Your task to perform on an android device: Go to Wikipedia Image 0: 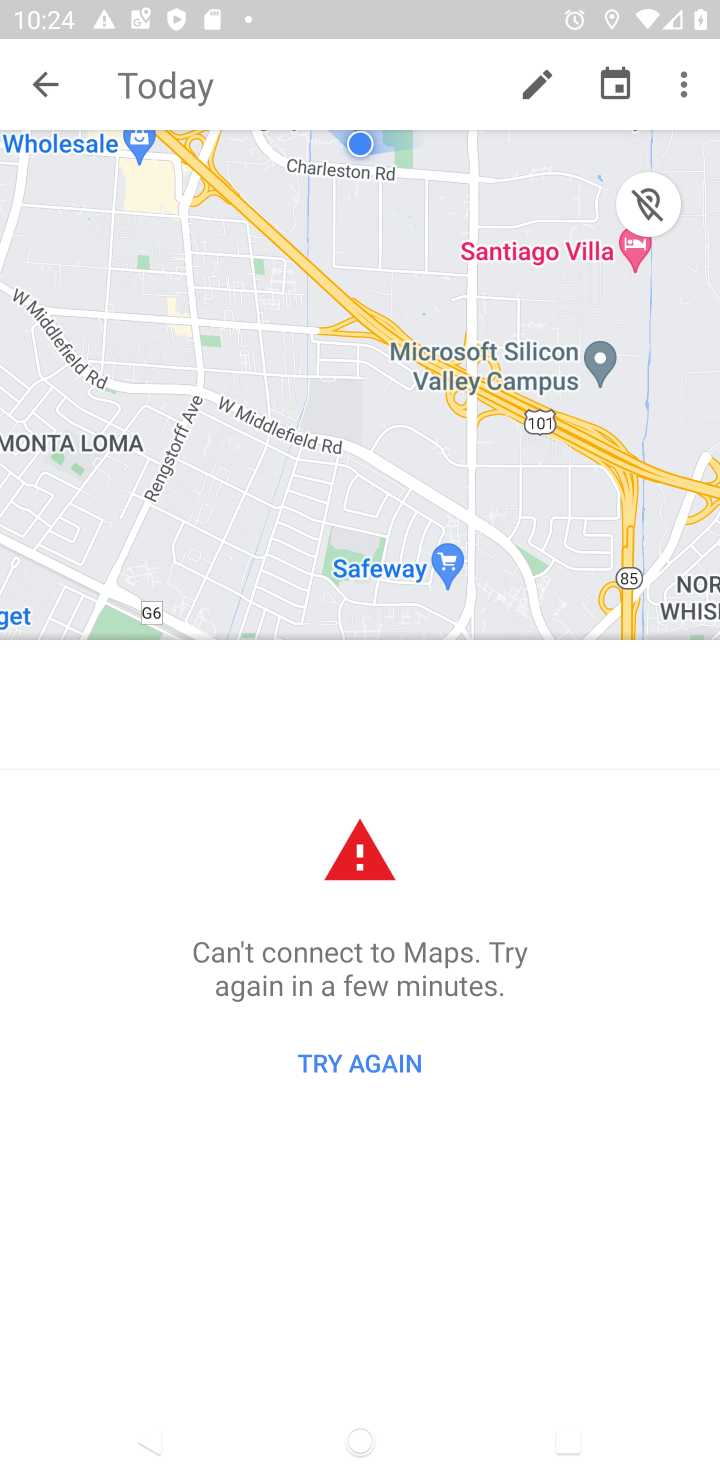
Step 0: press home button
Your task to perform on an android device: Go to Wikipedia Image 1: 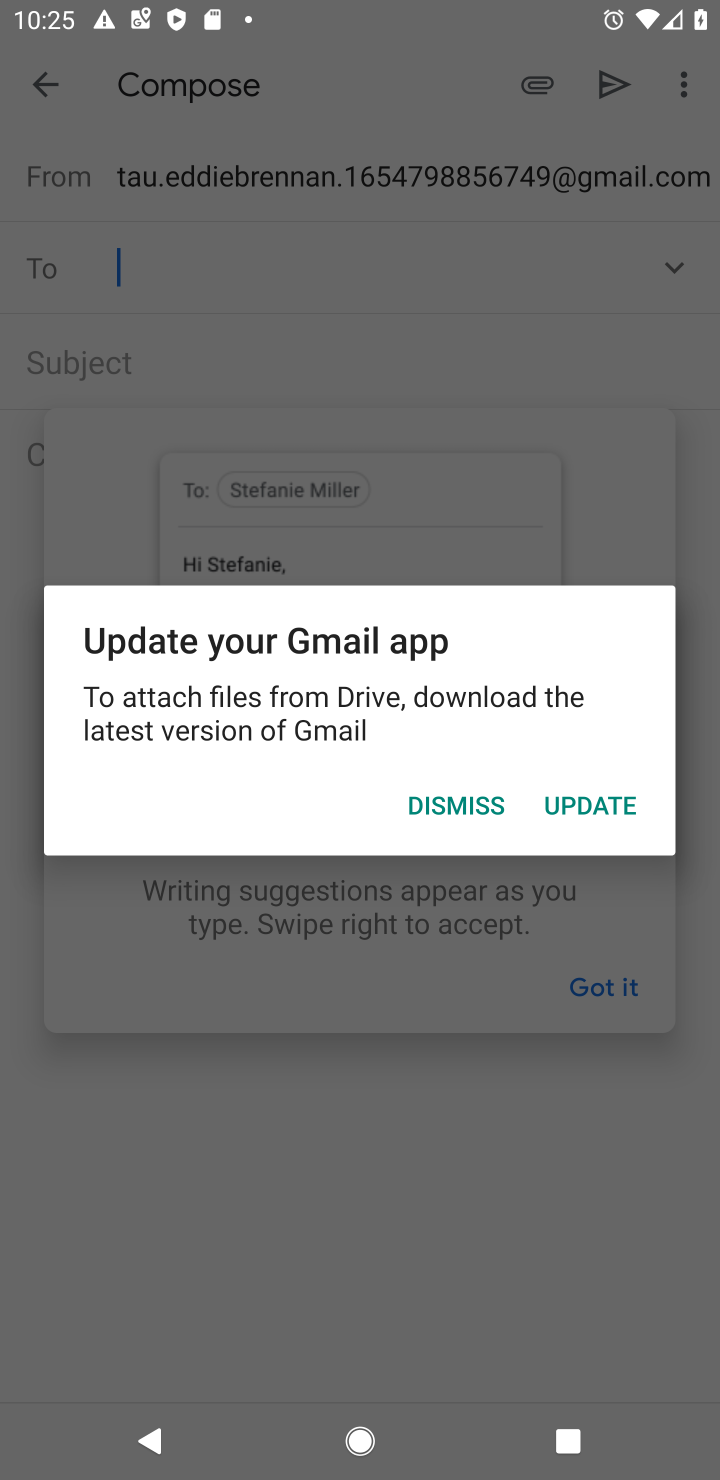
Step 1: press home button
Your task to perform on an android device: Go to Wikipedia Image 2: 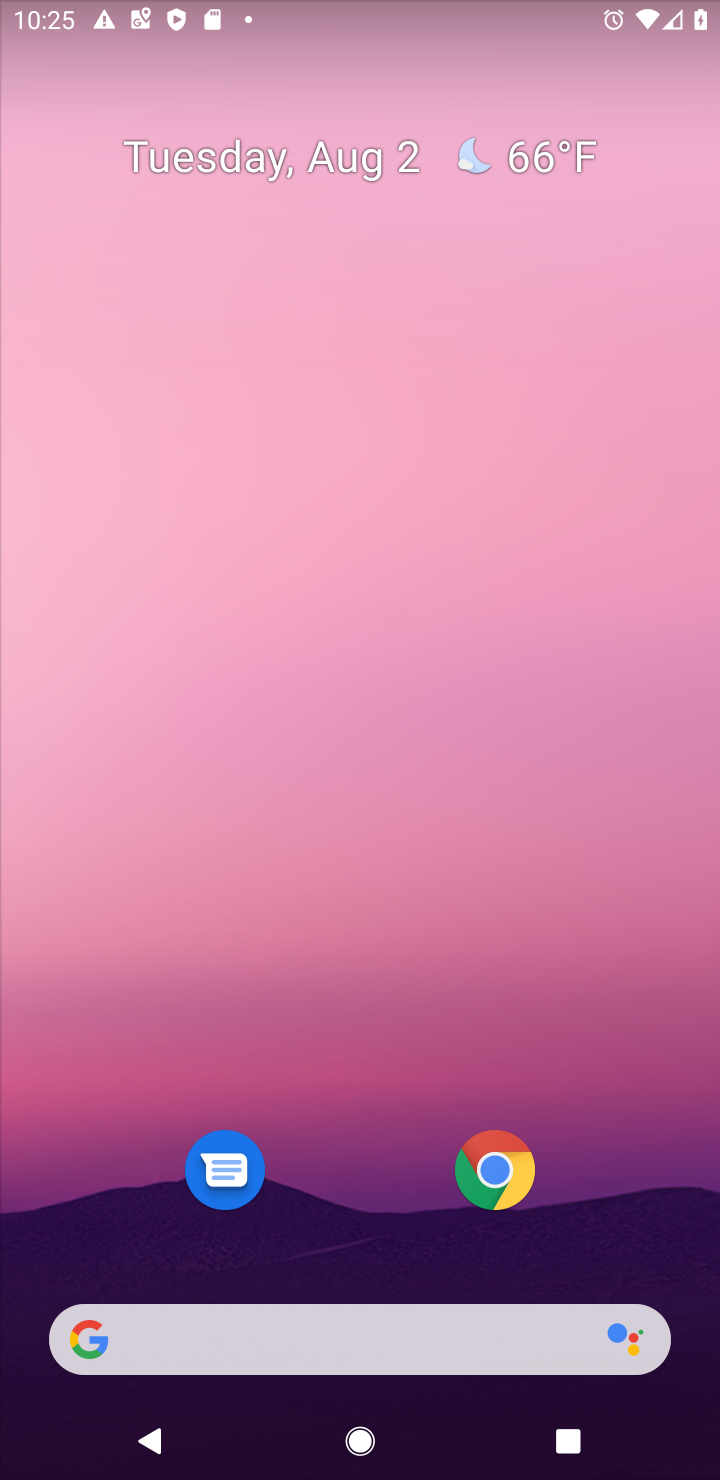
Step 2: drag from (294, 614) to (341, 60)
Your task to perform on an android device: Go to Wikipedia Image 3: 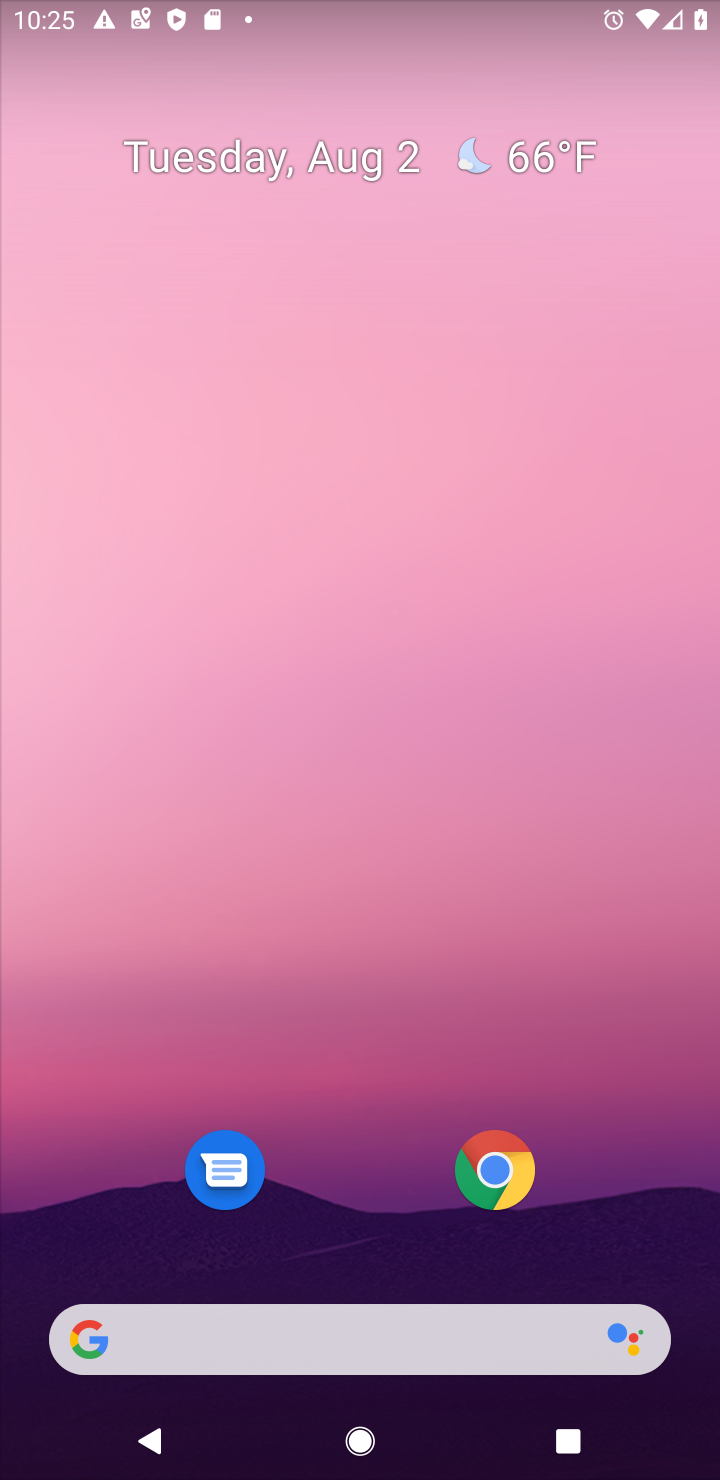
Step 3: click (359, 271)
Your task to perform on an android device: Go to Wikipedia Image 4: 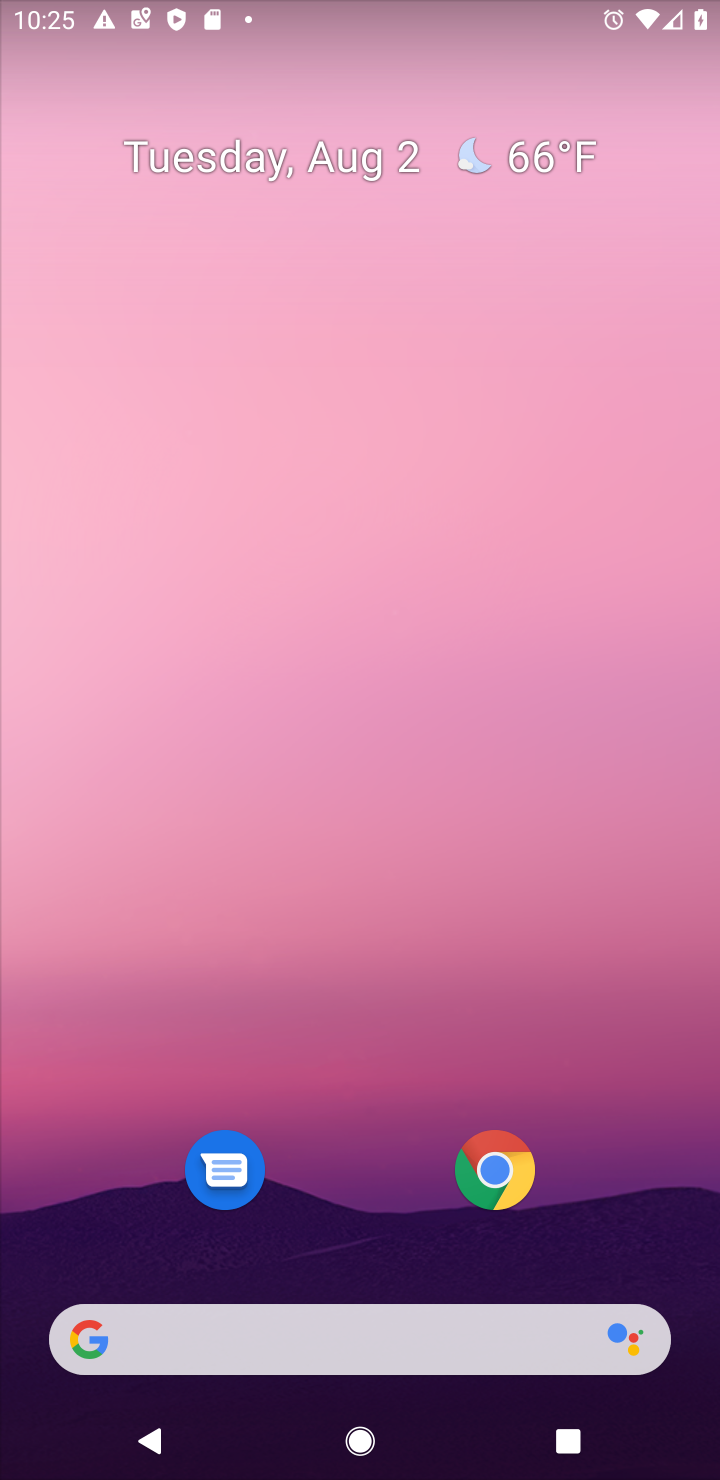
Step 4: drag from (349, 1220) to (445, 197)
Your task to perform on an android device: Go to Wikipedia Image 5: 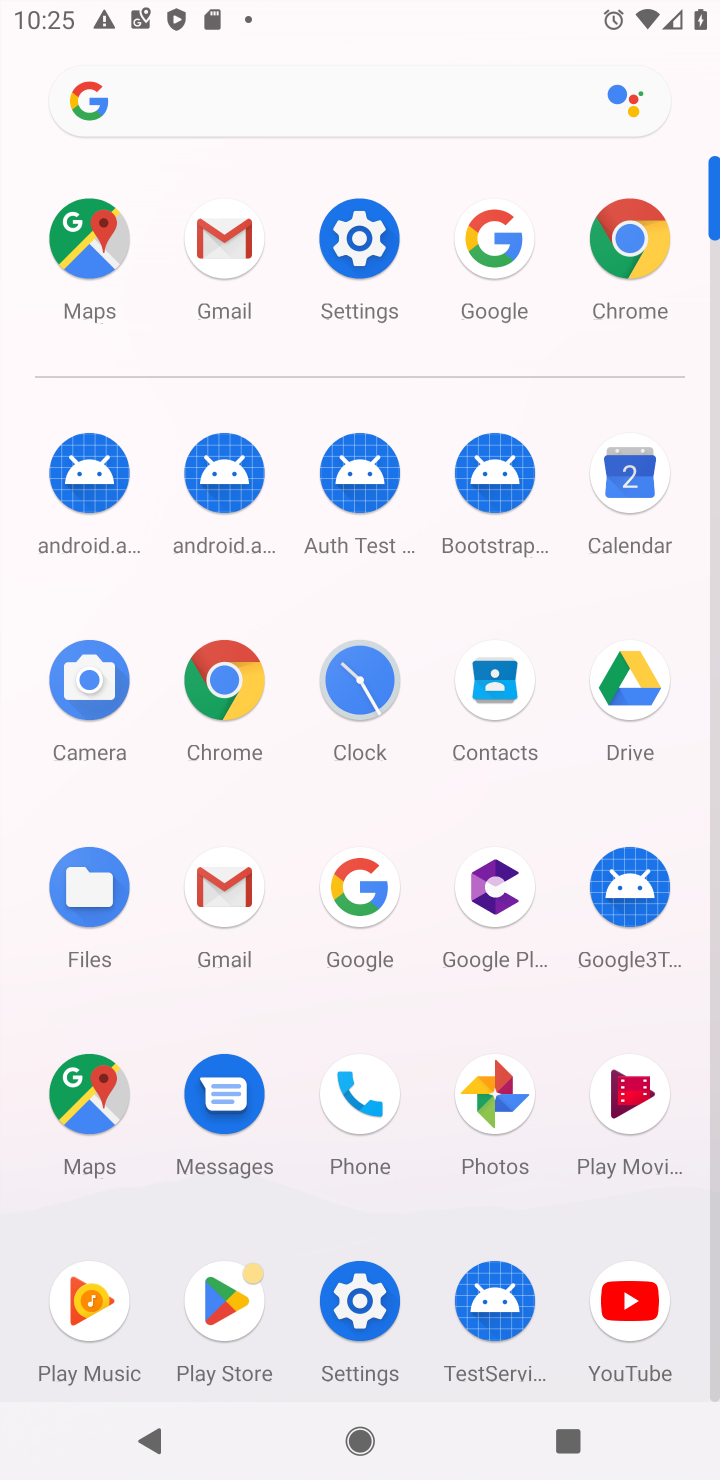
Step 5: click (631, 263)
Your task to perform on an android device: Go to Wikipedia Image 6: 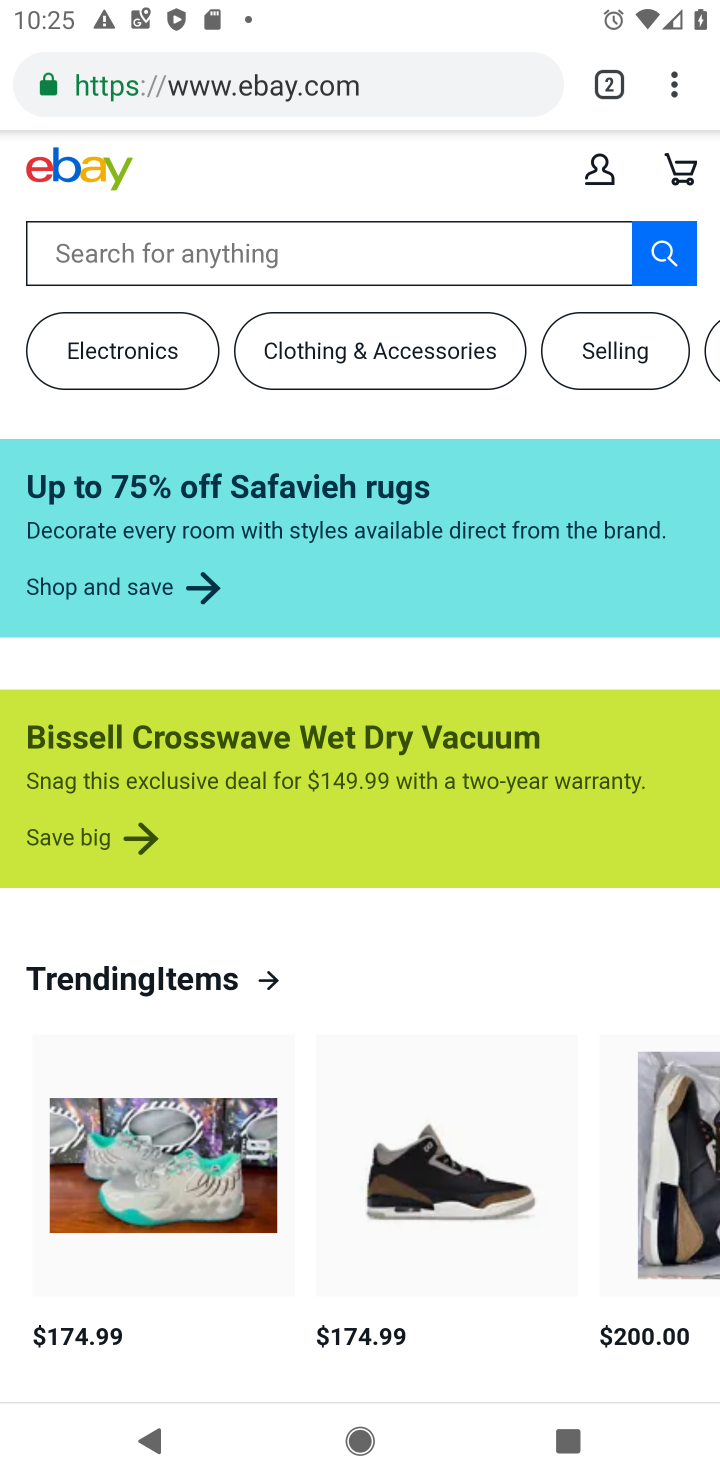
Step 6: click (310, 79)
Your task to perform on an android device: Go to Wikipedia Image 7: 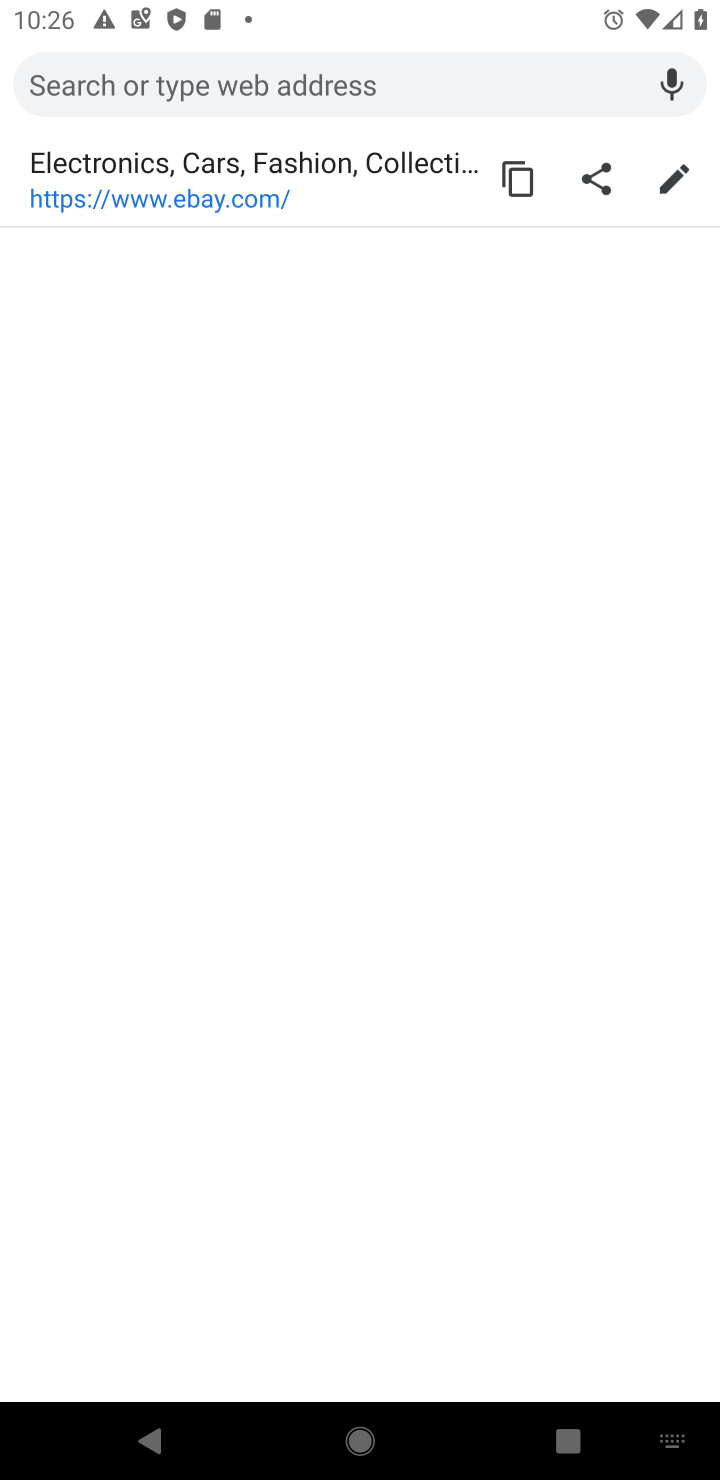
Step 7: type "www.wikipedia.com"
Your task to perform on an android device: Go to Wikipedia Image 8: 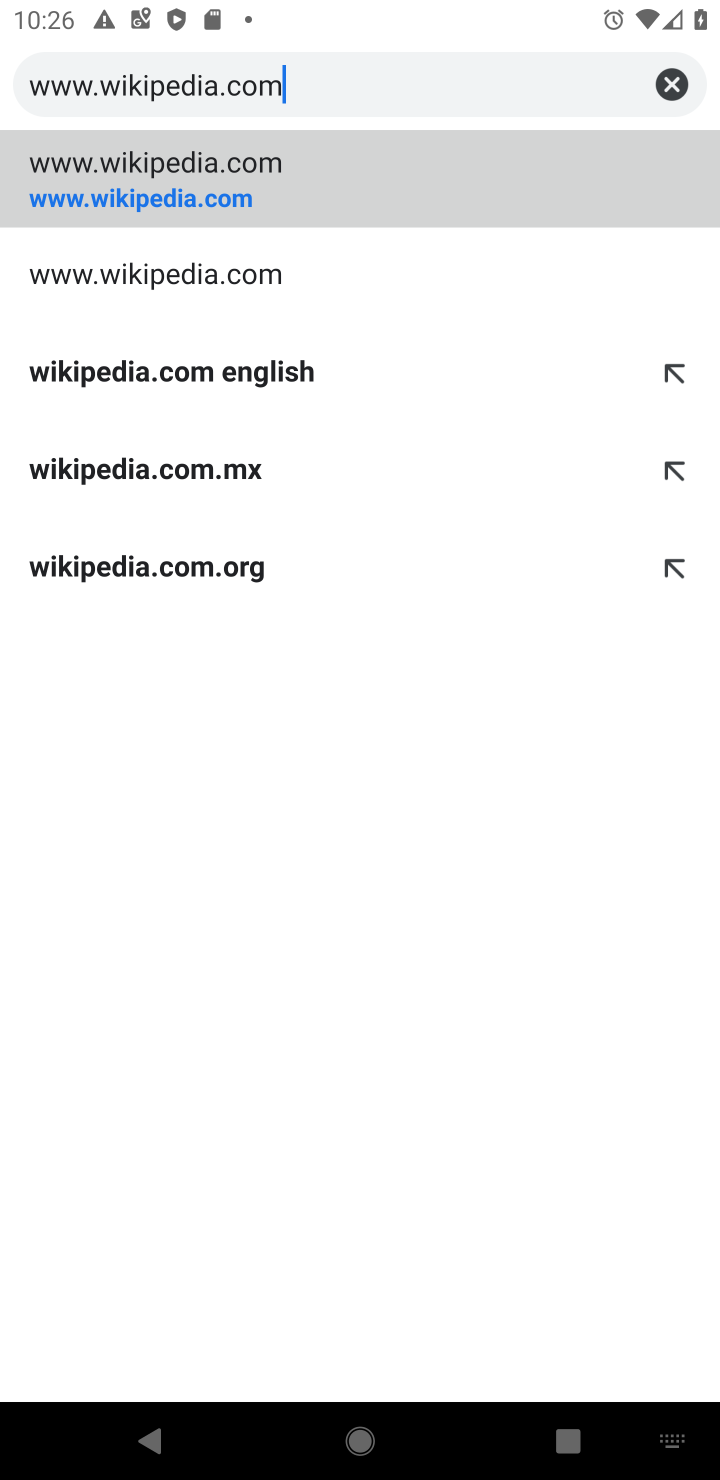
Step 8: click (229, 208)
Your task to perform on an android device: Go to Wikipedia Image 9: 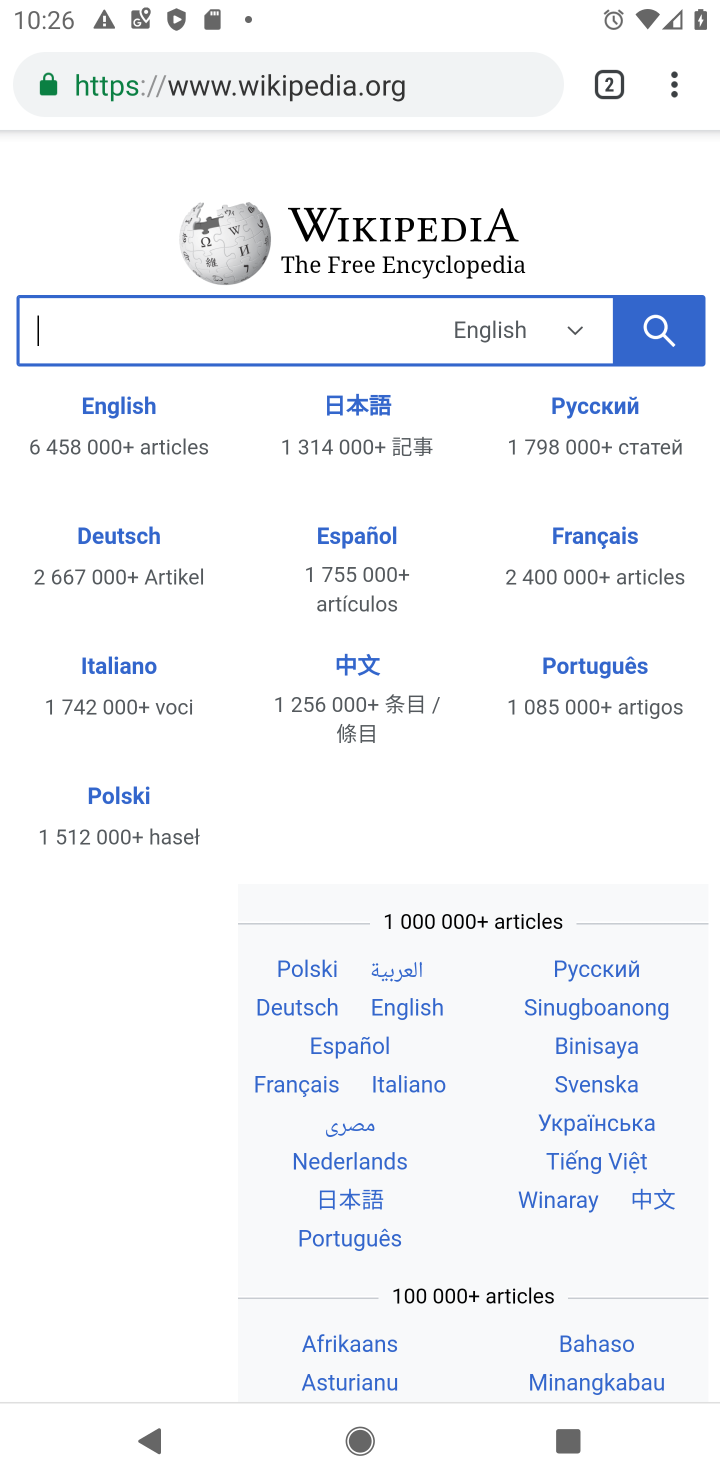
Step 9: task complete